Your task to perform on an android device: Do I have any events tomorrow? Image 0: 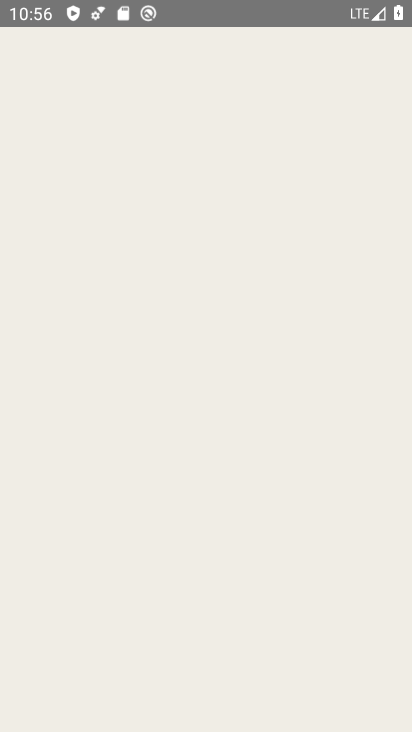
Step 0: press home button
Your task to perform on an android device: Do I have any events tomorrow? Image 1: 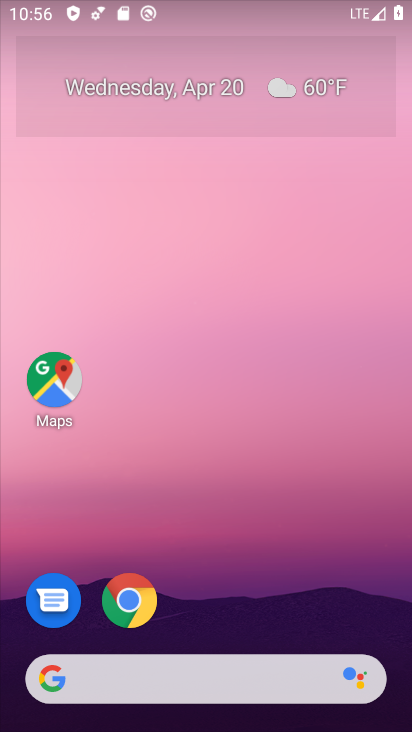
Step 1: drag from (277, 562) to (283, 101)
Your task to perform on an android device: Do I have any events tomorrow? Image 2: 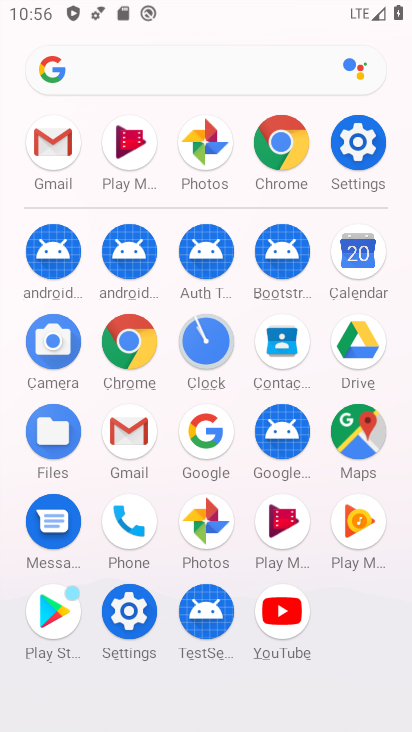
Step 2: click (361, 244)
Your task to perform on an android device: Do I have any events tomorrow? Image 3: 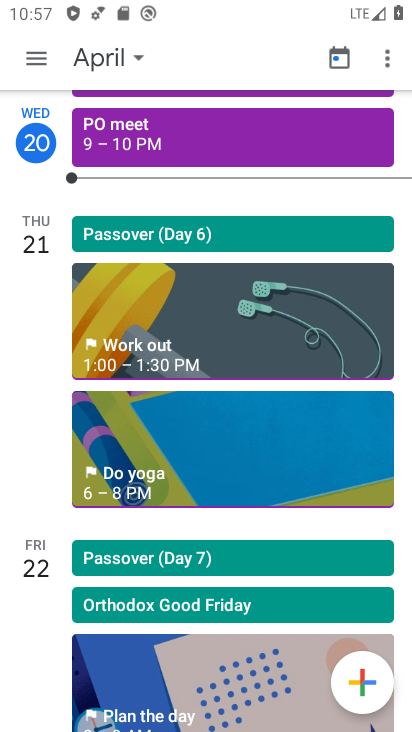
Step 3: task complete